Your task to perform on an android device: Open the stopwatch Image 0: 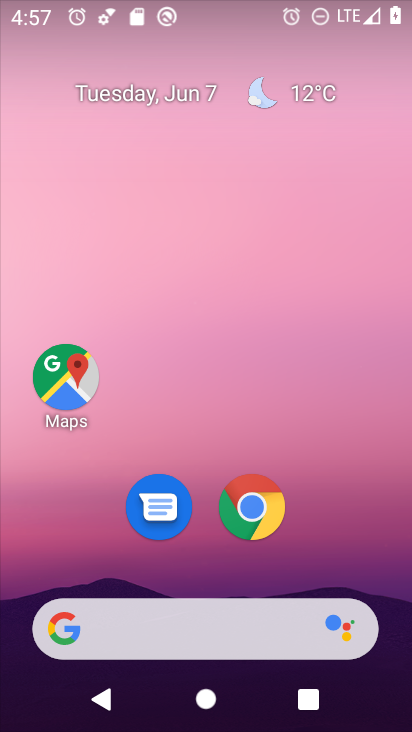
Step 0: drag from (339, 526) to (259, 68)
Your task to perform on an android device: Open the stopwatch Image 1: 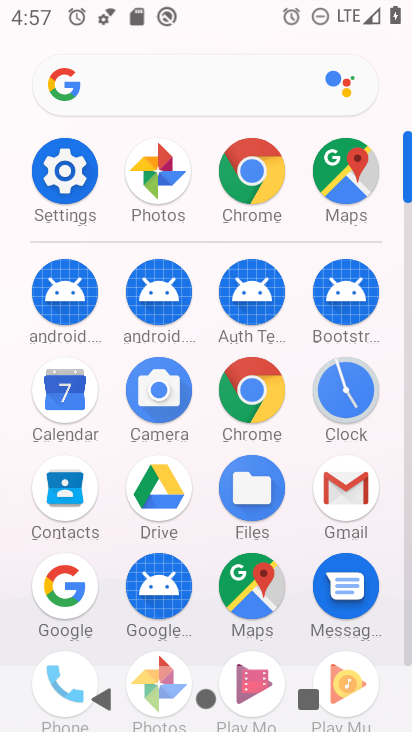
Step 1: drag from (1, 580) to (28, 229)
Your task to perform on an android device: Open the stopwatch Image 2: 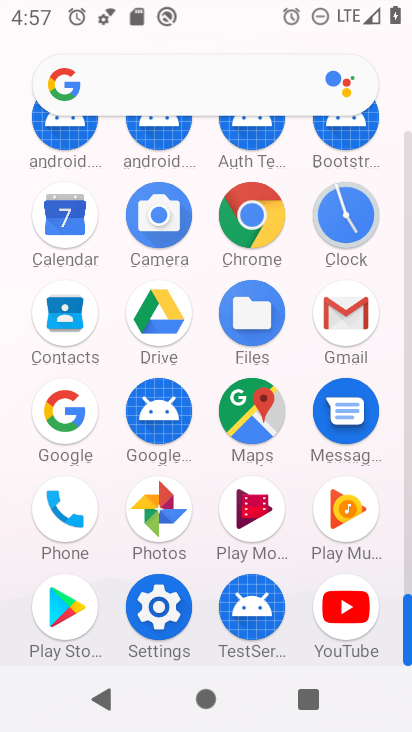
Step 2: click (348, 211)
Your task to perform on an android device: Open the stopwatch Image 3: 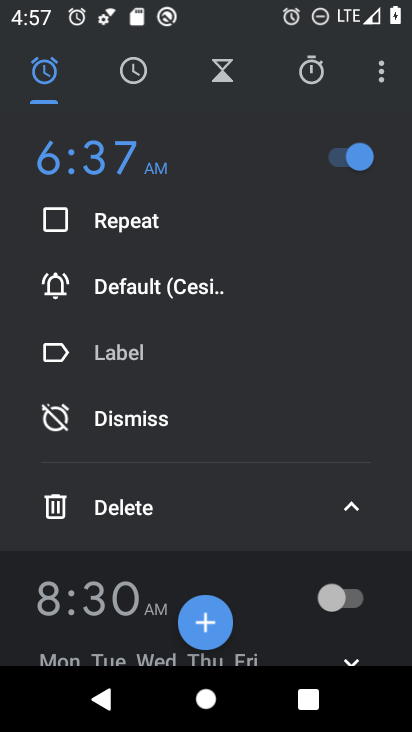
Step 3: click (314, 54)
Your task to perform on an android device: Open the stopwatch Image 4: 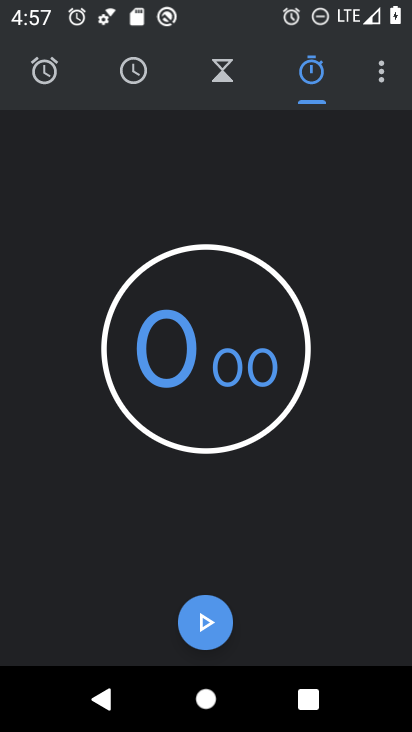
Step 4: task complete